Your task to perform on an android device: change the upload size in google photos Image 0: 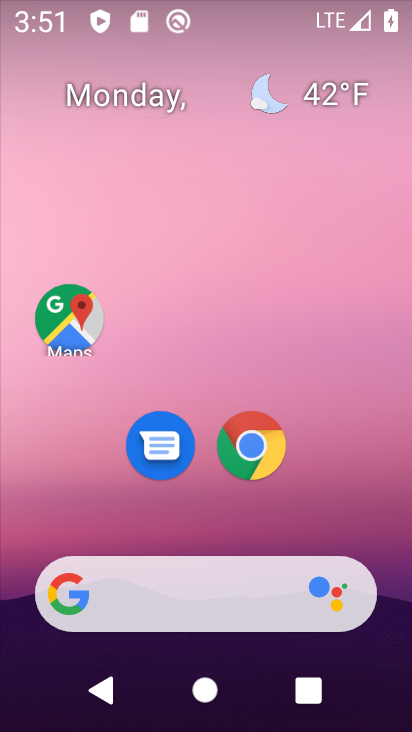
Step 0: drag from (16, 480) to (216, 30)
Your task to perform on an android device: change the upload size in google photos Image 1: 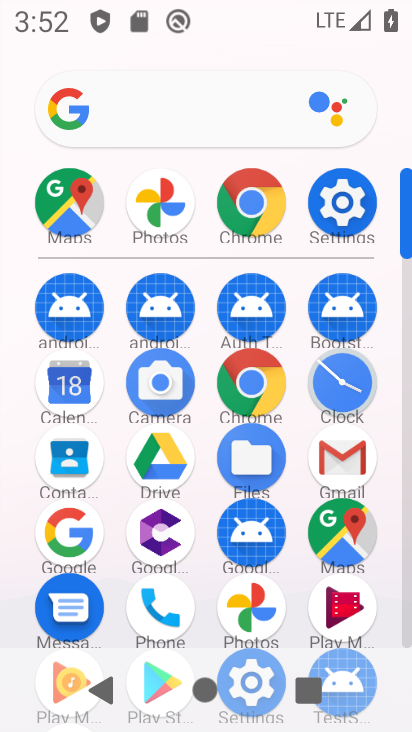
Step 1: click (266, 594)
Your task to perform on an android device: change the upload size in google photos Image 2: 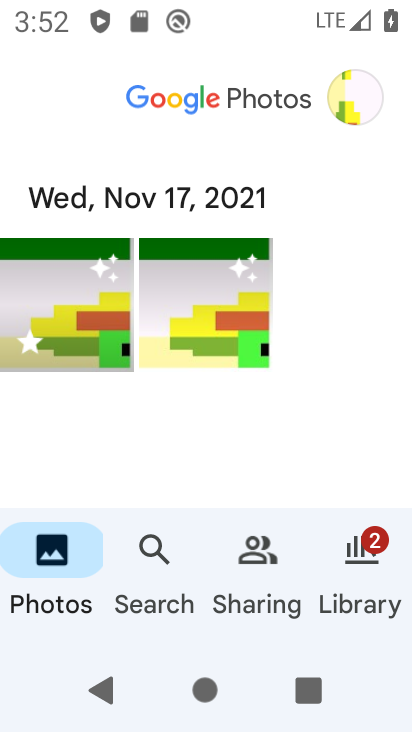
Step 2: click (347, 96)
Your task to perform on an android device: change the upload size in google photos Image 3: 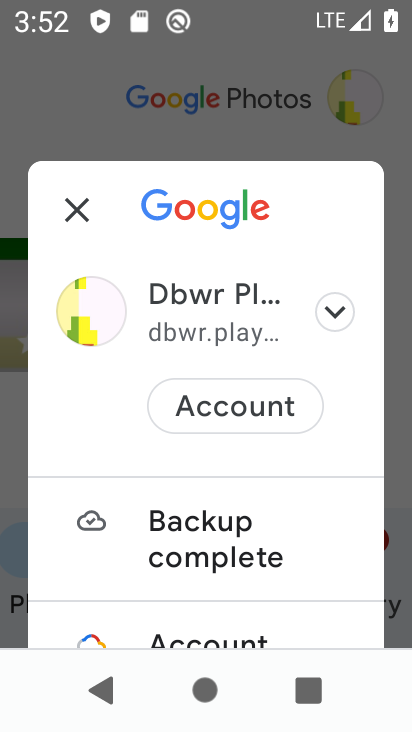
Step 3: drag from (119, 596) to (217, 112)
Your task to perform on an android device: change the upload size in google photos Image 4: 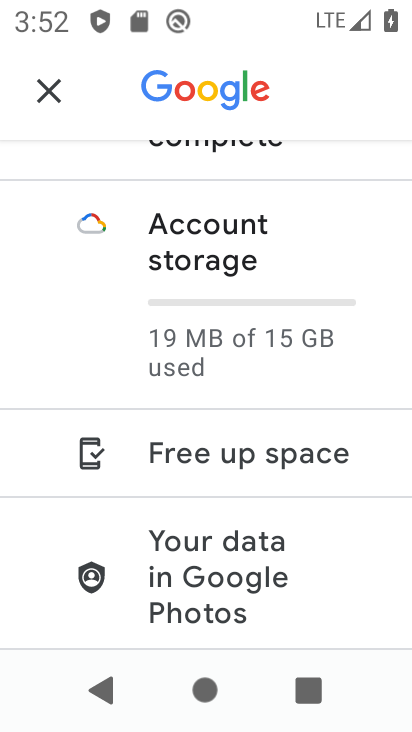
Step 4: drag from (153, 560) to (204, 150)
Your task to perform on an android device: change the upload size in google photos Image 5: 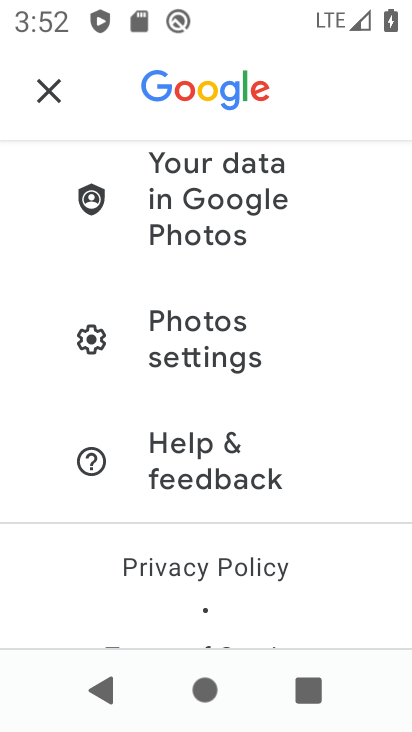
Step 5: drag from (125, 529) to (195, 159)
Your task to perform on an android device: change the upload size in google photos Image 6: 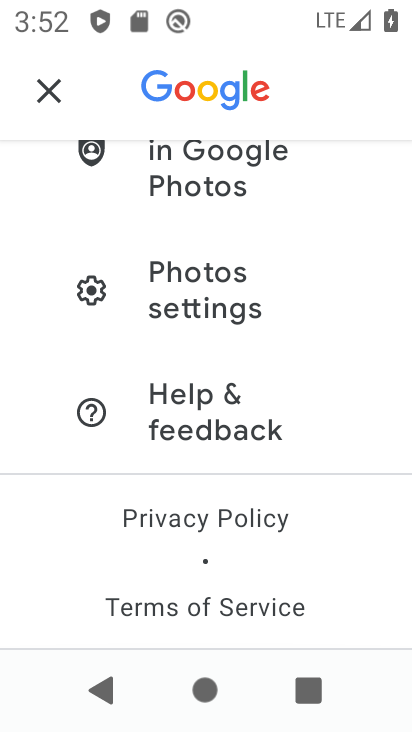
Step 6: drag from (228, 196) to (158, 596)
Your task to perform on an android device: change the upload size in google photos Image 7: 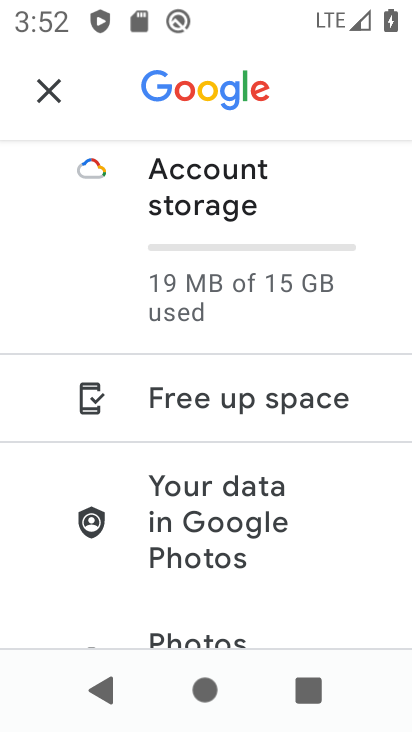
Step 7: drag from (214, 257) to (227, 577)
Your task to perform on an android device: change the upload size in google photos Image 8: 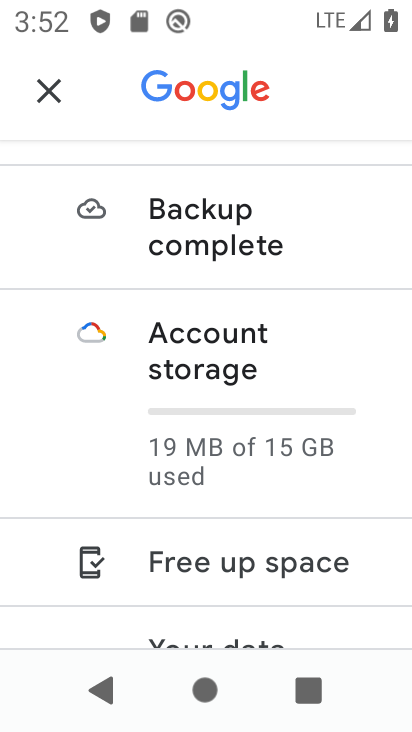
Step 8: drag from (131, 586) to (207, 234)
Your task to perform on an android device: change the upload size in google photos Image 9: 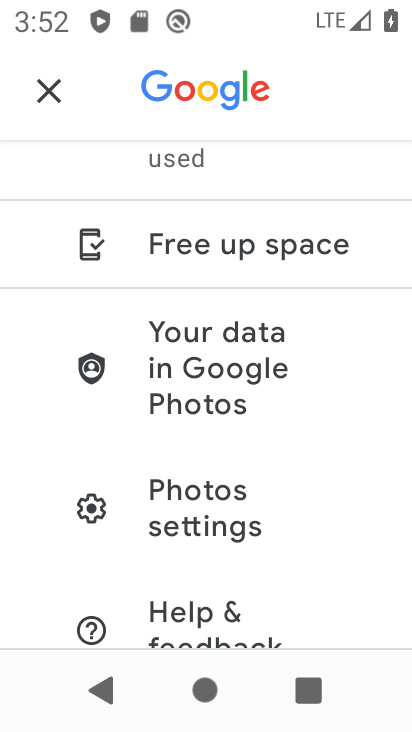
Step 9: click (213, 517)
Your task to perform on an android device: change the upload size in google photos Image 10: 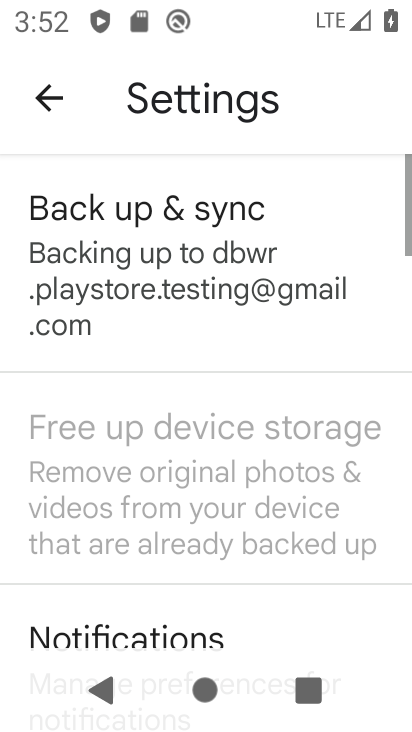
Step 10: drag from (118, 559) to (188, 174)
Your task to perform on an android device: change the upload size in google photos Image 11: 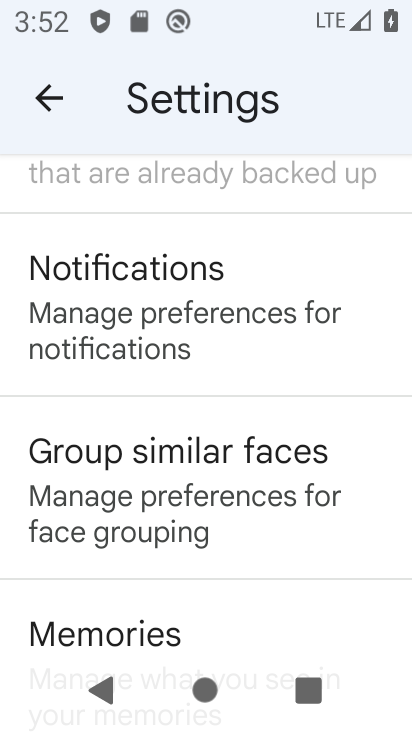
Step 11: drag from (210, 283) to (195, 619)
Your task to perform on an android device: change the upload size in google photos Image 12: 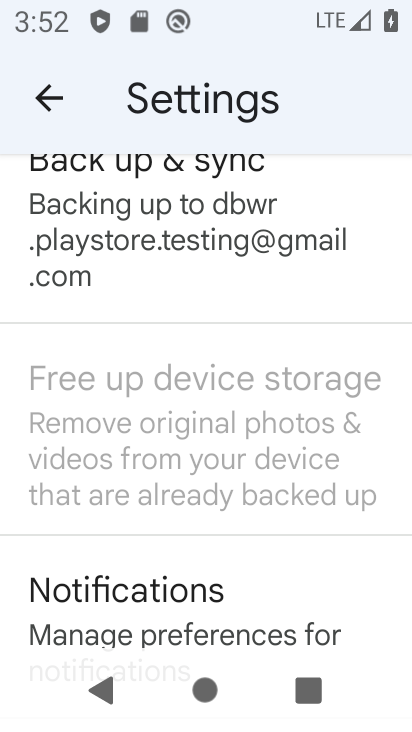
Step 12: click (212, 277)
Your task to perform on an android device: change the upload size in google photos Image 13: 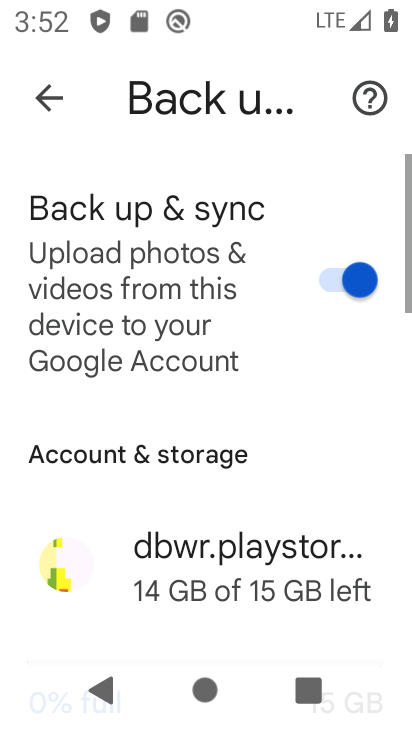
Step 13: drag from (102, 589) to (236, 87)
Your task to perform on an android device: change the upload size in google photos Image 14: 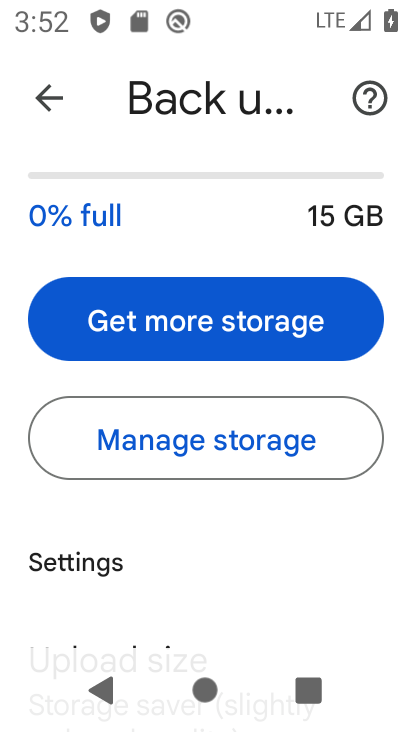
Step 14: drag from (190, 511) to (251, 116)
Your task to perform on an android device: change the upload size in google photos Image 15: 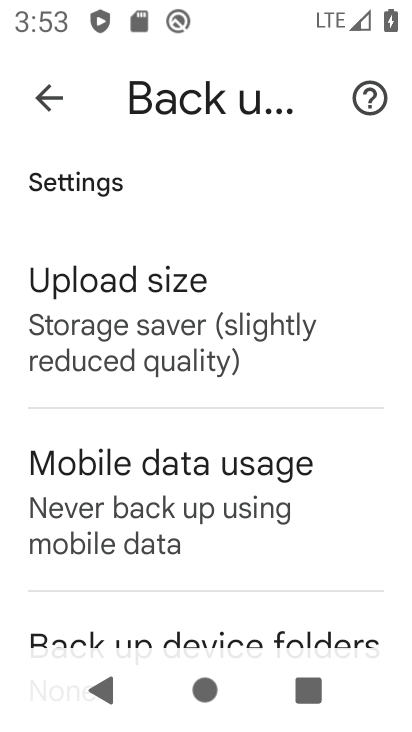
Step 15: click (204, 312)
Your task to perform on an android device: change the upload size in google photos Image 16: 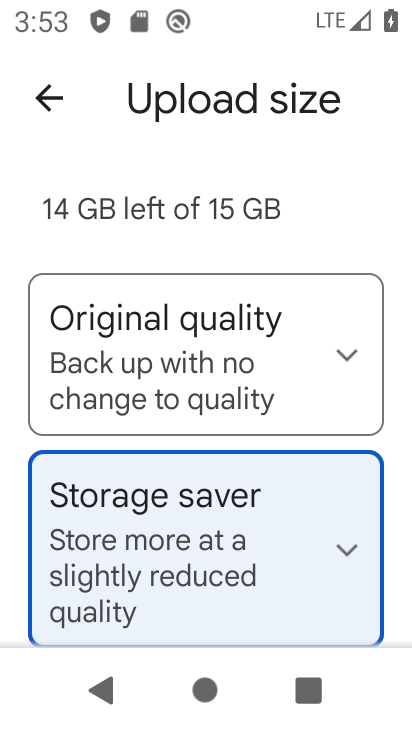
Step 16: click (199, 355)
Your task to perform on an android device: change the upload size in google photos Image 17: 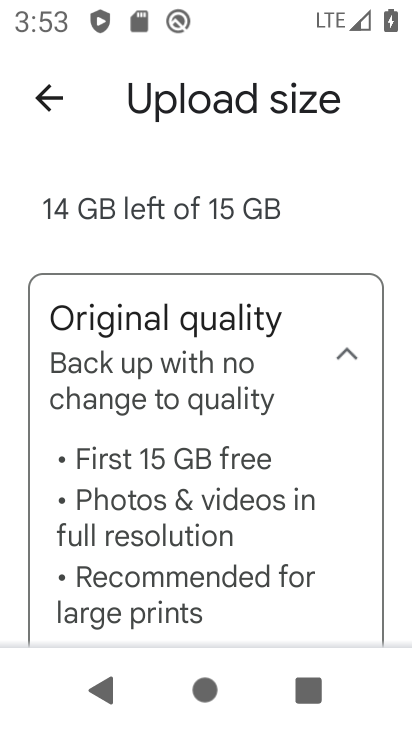
Step 17: click (199, 355)
Your task to perform on an android device: change the upload size in google photos Image 18: 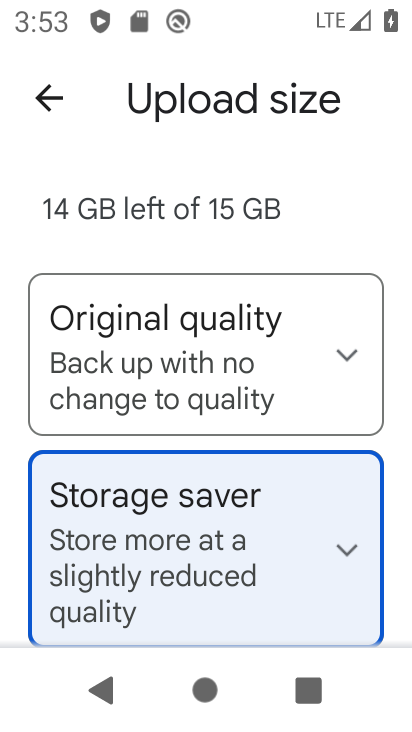
Step 18: click (363, 360)
Your task to perform on an android device: change the upload size in google photos Image 19: 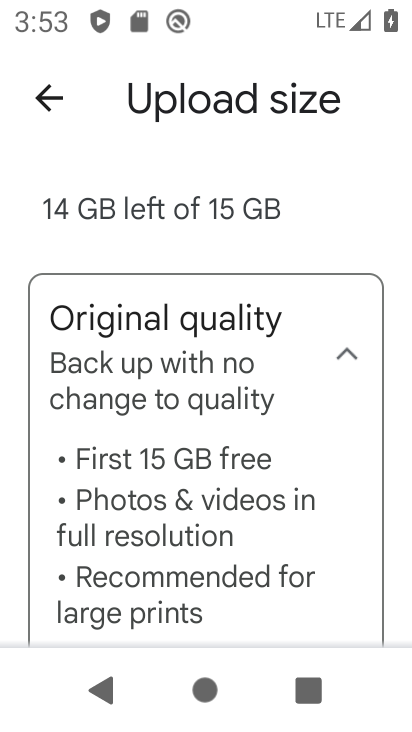
Step 19: click (367, 349)
Your task to perform on an android device: change the upload size in google photos Image 20: 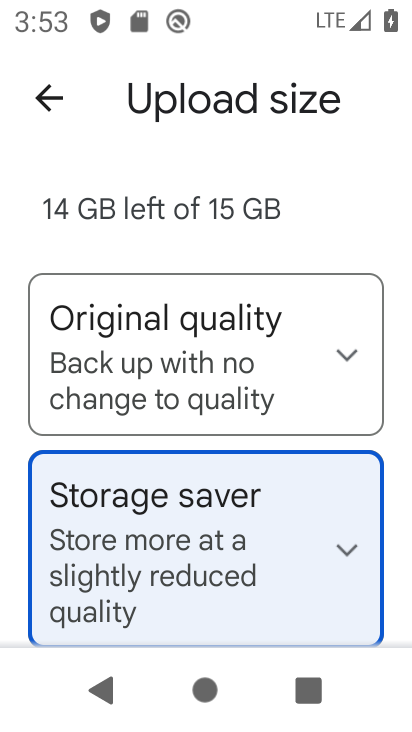
Step 20: click (58, 287)
Your task to perform on an android device: change the upload size in google photos Image 21: 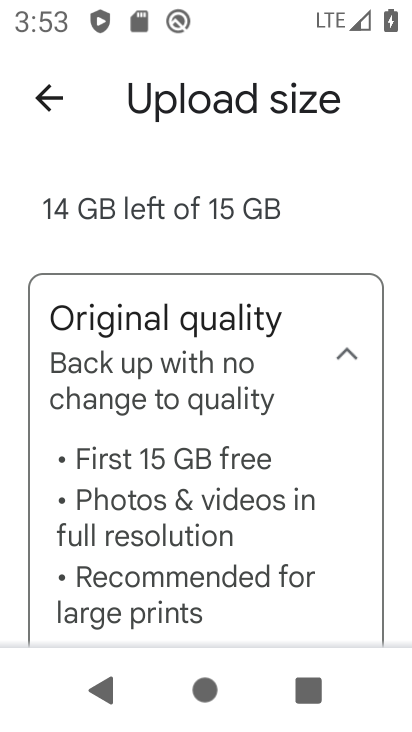
Step 21: task complete